Your task to perform on an android device: clear all cookies in the chrome app Image 0: 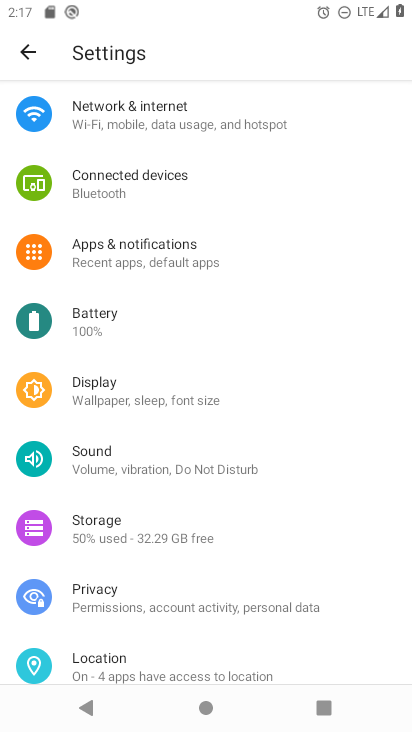
Step 0: press home button
Your task to perform on an android device: clear all cookies in the chrome app Image 1: 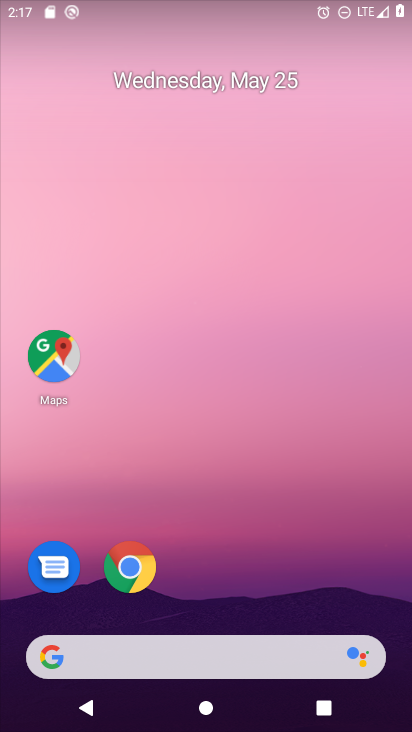
Step 1: click (136, 569)
Your task to perform on an android device: clear all cookies in the chrome app Image 2: 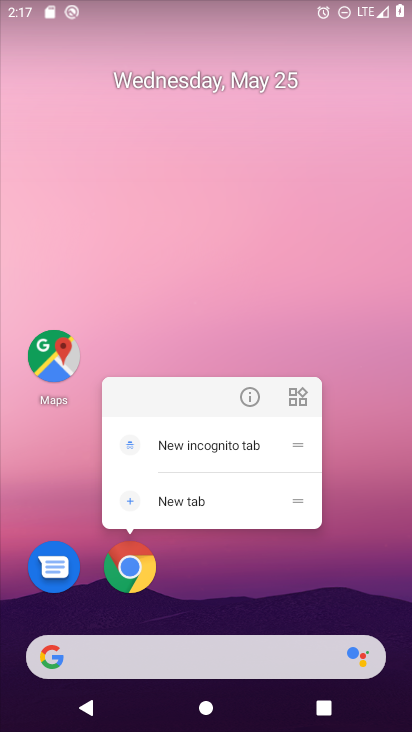
Step 2: click (121, 567)
Your task to perform on an android device: clear all cookies in the chrome app Image 3: 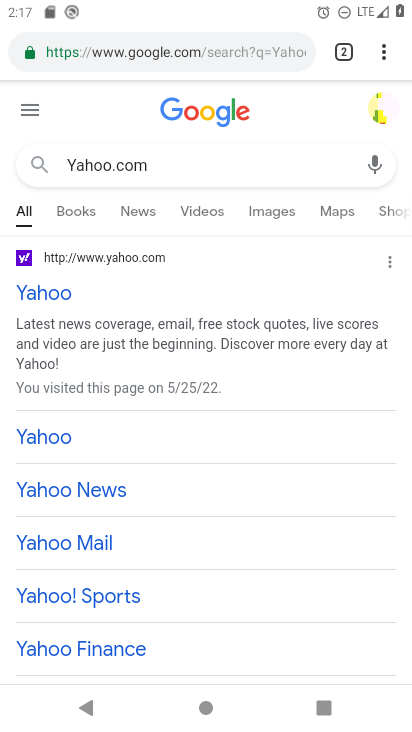
Step 3: click (390, 53)
Your task to perform on an android device: clear all cookies in the chrome app Image 4: 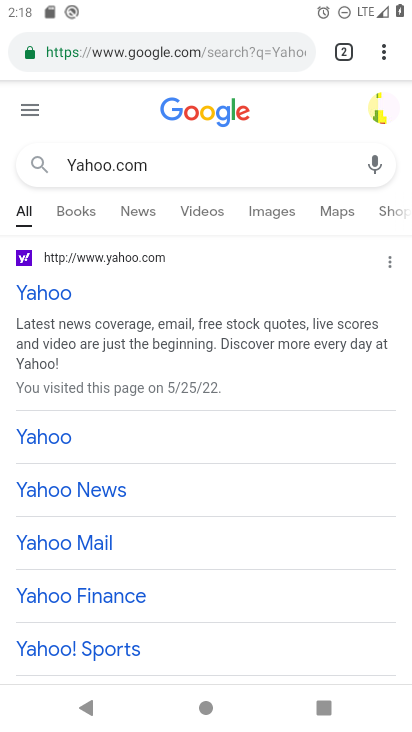
Step 4: click (379, 48)
Your task to perform on an android device: clear all cookies in the chrome app Image 5: 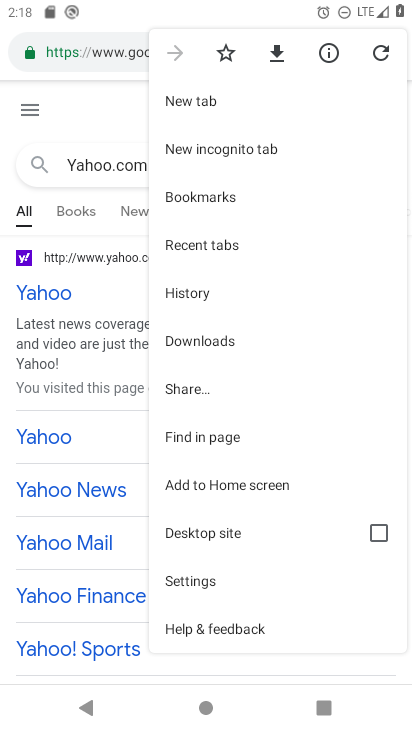
Step 5: click (191, 581)
Your task to perform on an android device: clear all cookies in the chrome app Image 6: 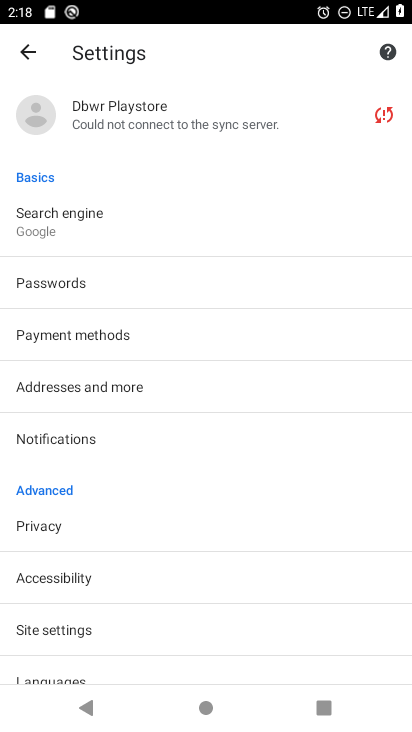
Step 6: click (26, 58)
Your task to perform on an android device: clear all cookies in the chrome app Image 7: 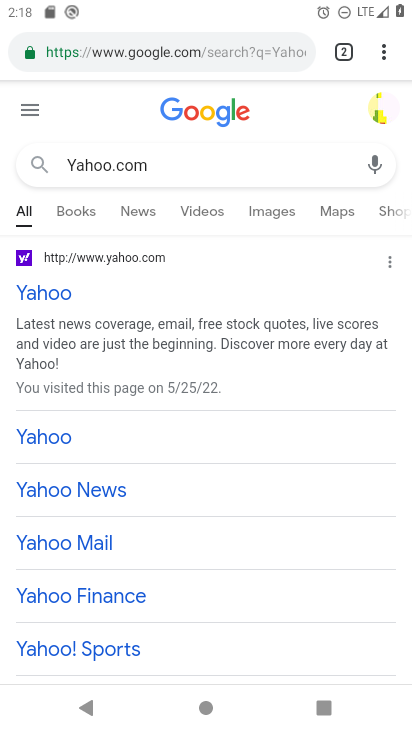
Step 7: click (381, 54)
Your task to perform on an android device: clear all cookies in the chrome app Image 8: 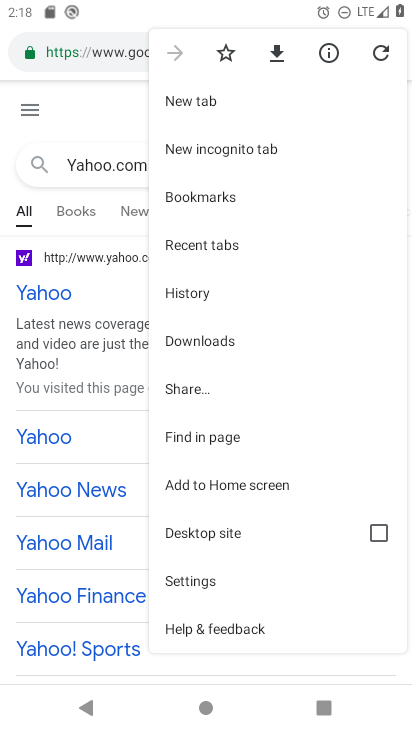
Step 8: click (192, 291)
Your task to perform on an android device: clear all cookies in the chrome app Image 9: 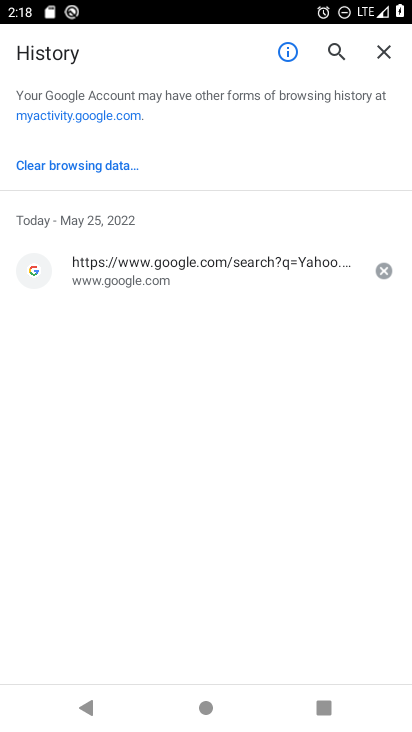
Step 9: click (109, 160)
Your task to perform on an android device: clear all cookies in the chrome app Image 10: 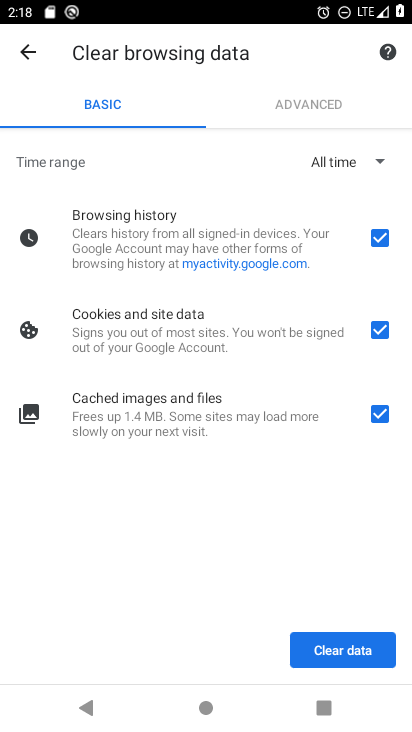
Step 10: click (329, 648)
Your task to perform on an android device: clear all cookies in the chrome app Image 11: 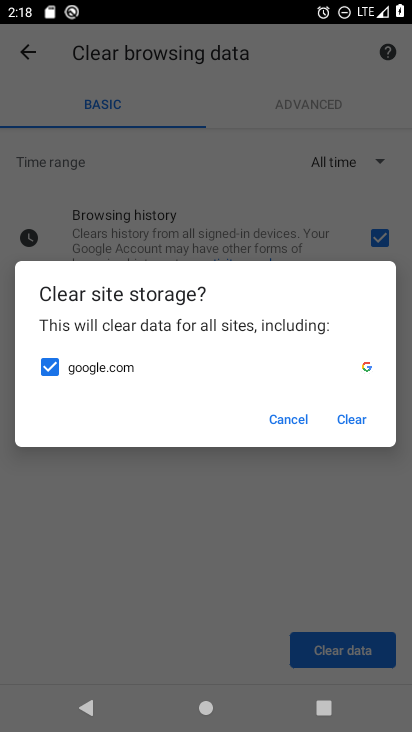
Step 11: click (350, 415)
Your task to perform on an android device: clear all cookies in the chrome app Image 12: 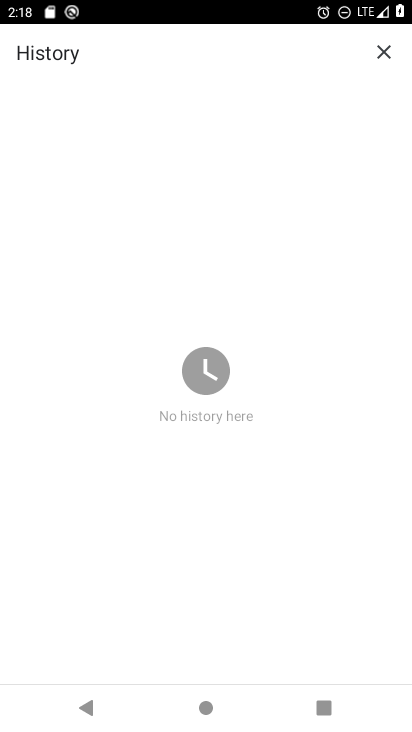
Step 12: task complete